Your task to perform on an android device: Check the weather Image 0: 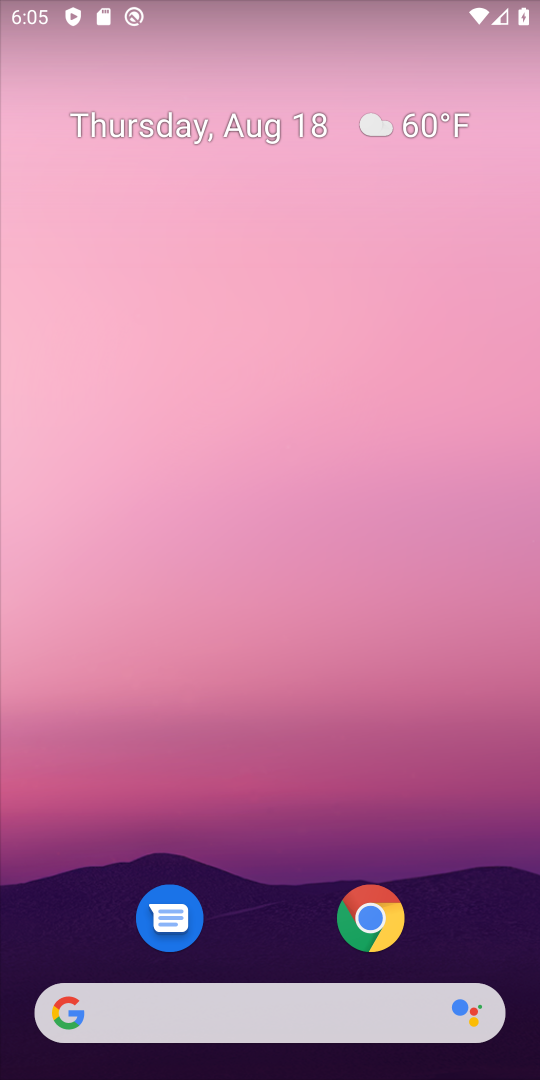
Step 0: press home button
Your task to perform on an android device: Check the weather Image 1: 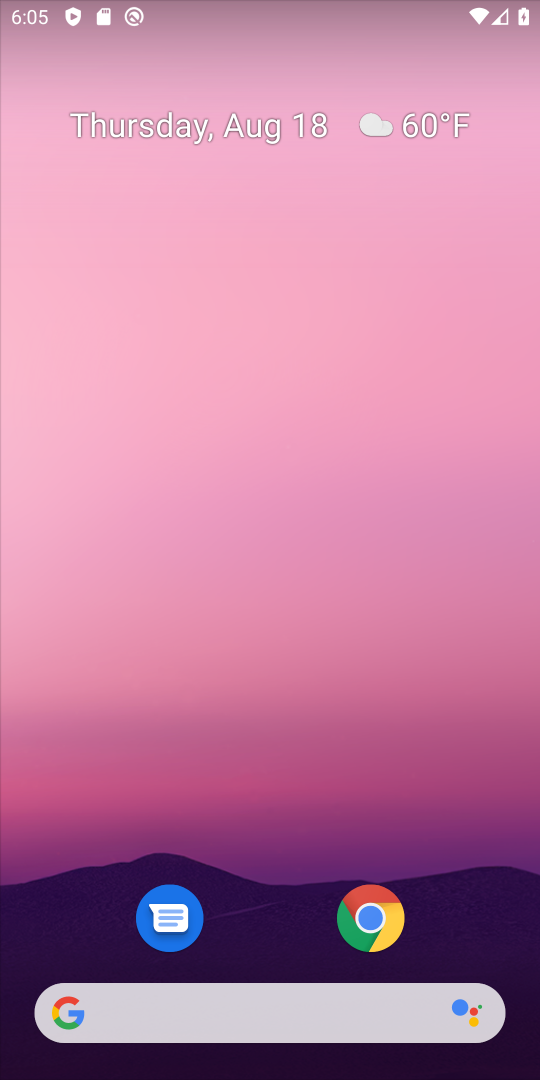
Step 1: click (66, 1021)
Your task to perform on an android device: Check the weather Image 2: 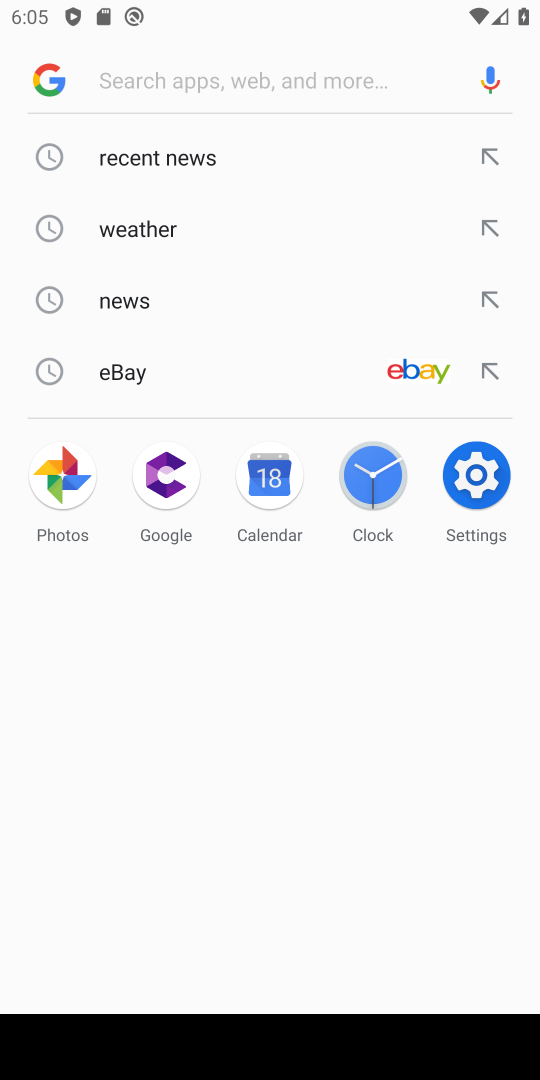
Step 2: click (137, 222)
Your task to perform on an android device: Check the weather Image 3: 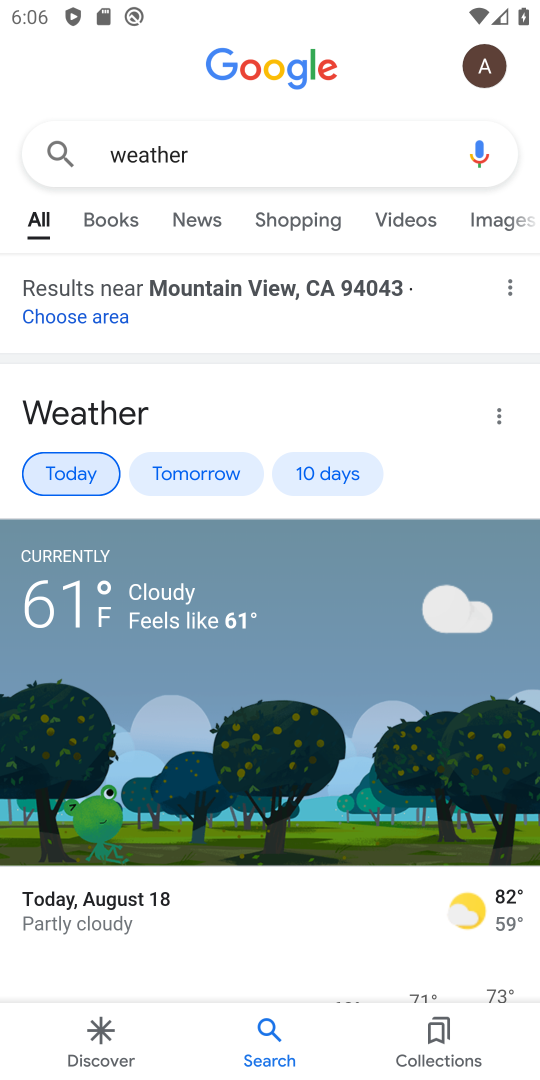
Step 3: task complete